Your task to perform on an android device: Open battery settings Image 0: 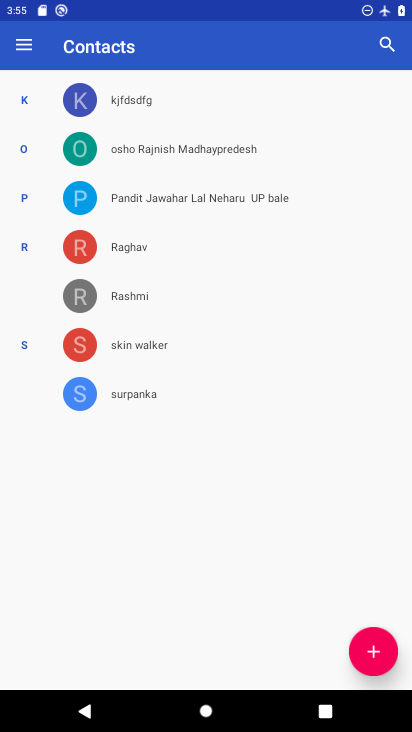
Step 0: press home button
Your task to perform on an android device: Open battery settings Image 1: 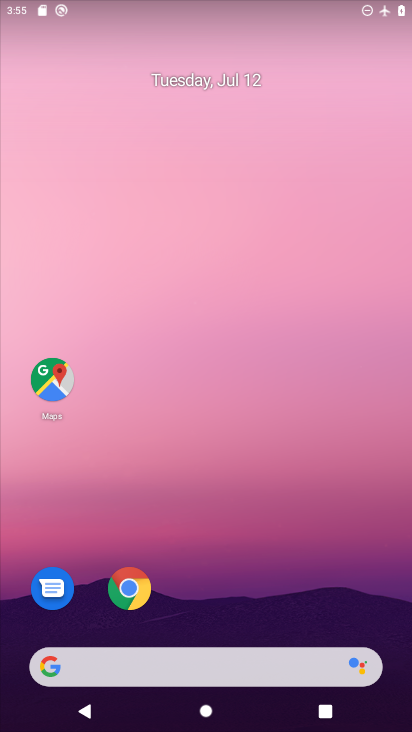
Step 1: drag from (243, 609) to (252, 35)
Your task to perform on an android device: Open battery settings Image 2: 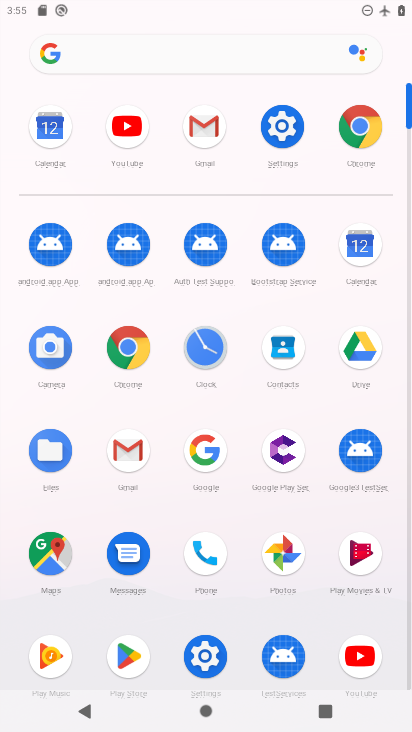
Step 2: click (284, 134)
Your task to perform on an android device: Open battery settings Image 3: 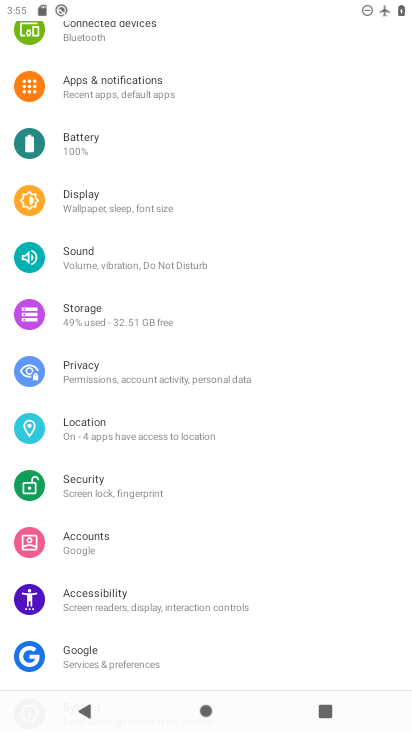
Step 3: click (141, 153)
Your task to perform on an android device: Open battery settings Image 4: 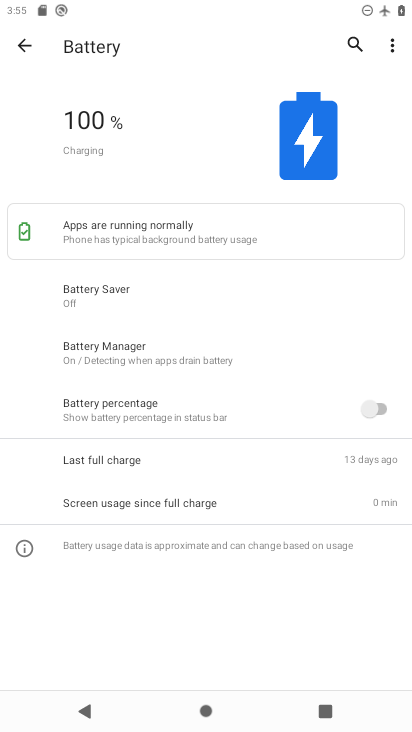
Step 4: task complete